Your task to perform on an android device: empty trash in google photos Image 0: 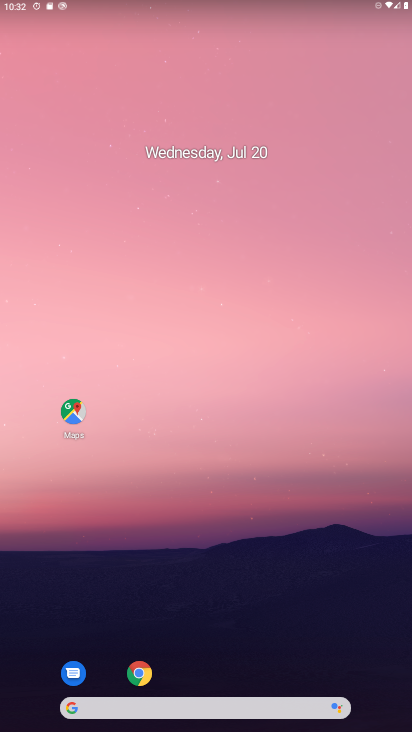
Step 0: drag from (370, 645) to (268, 109)
Your task to perform on an android device: empty trash in google photos Image 1: 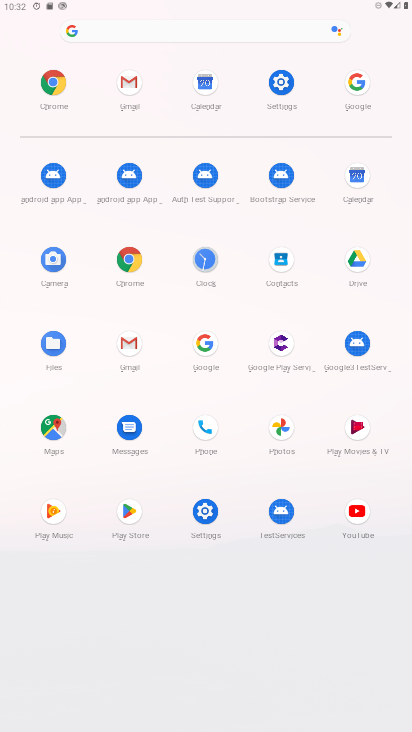
Step 1: click (284, 435)
Your task to perform on an android device: empty trash in google photos Image 2: 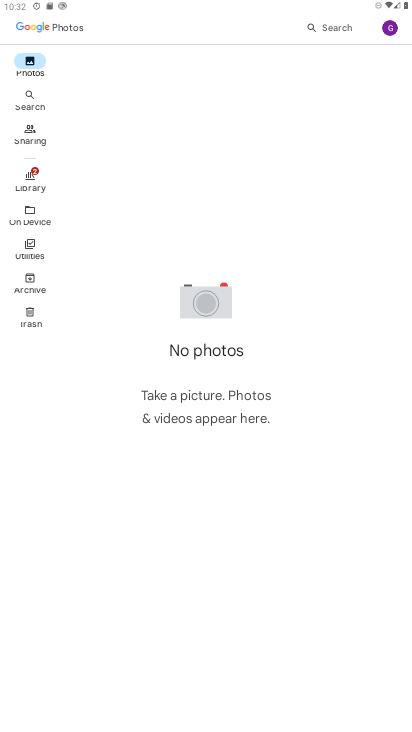
Step 2: click (29, 314)
Your task to perform on an android device: empty trash in google photos Image 3: 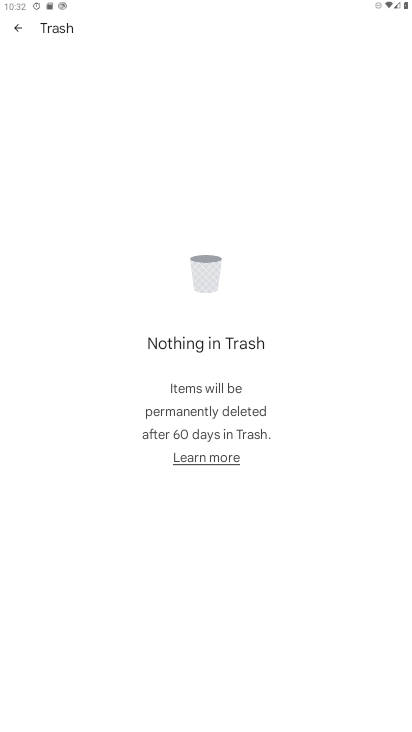
Step 3: task complete